Your task to perform on an android device: Open eBay Image 0: 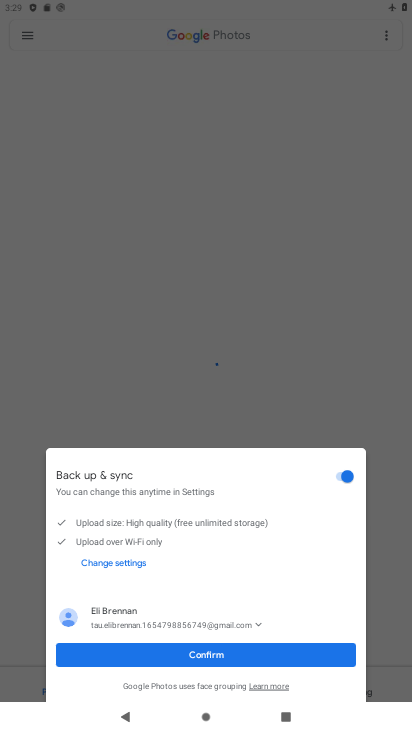
Step 0: press home button
Your task to perform on an android device: Open eBay Image 1: 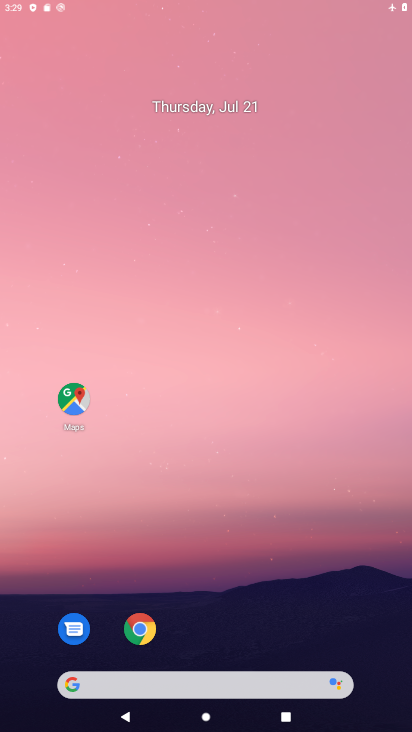
Step 1: press home button
Your task to perform on an android device: Open eBay Image 2: 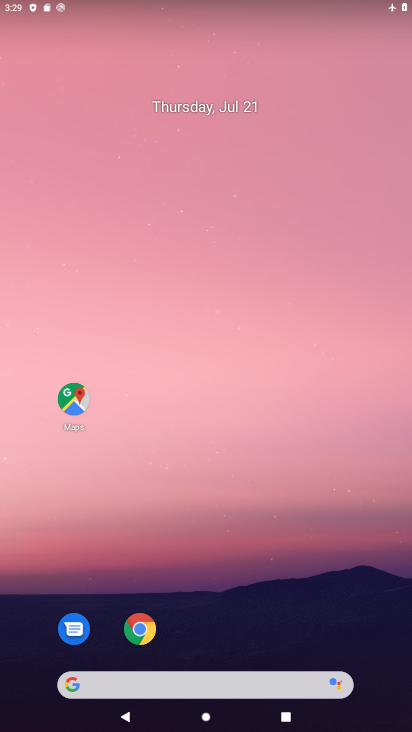
Step 2: click (132, 631)
Your task to perform on an android device: Open eBay Image 3: 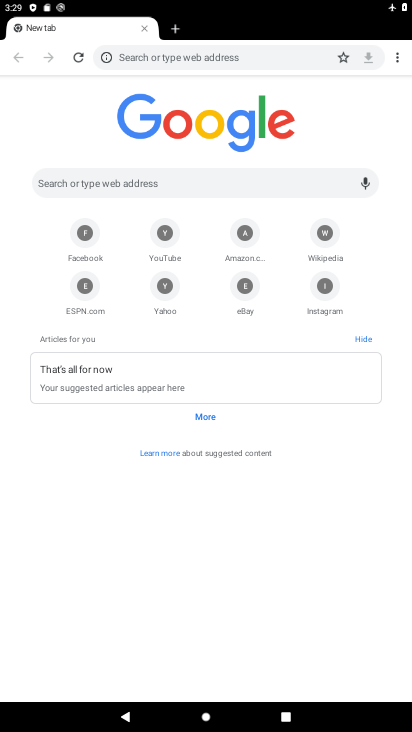
Step 3: click (254, 288)
Your task to perform on an android device: Open eBay Image 4: 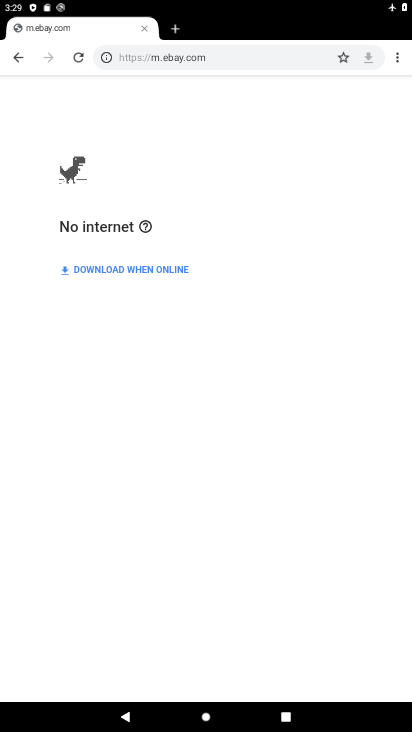
Step 4: drag from (345, 4) to (326, 418)
Your task to perform on an android device: Open eBay Image 5: 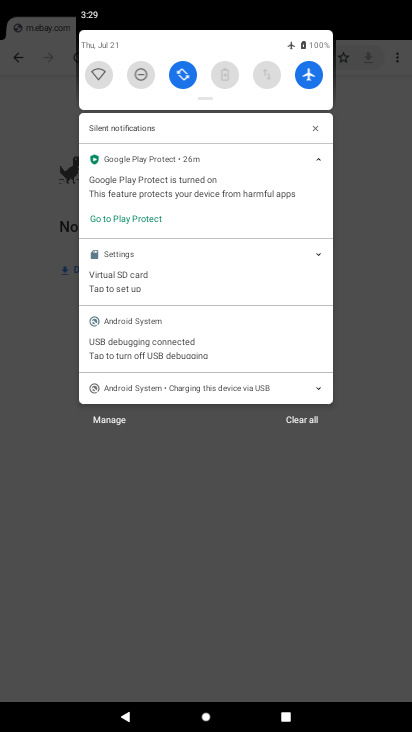
Step 5: click (310, 79)
Your task to perform on an android device: Open eBay Image 6: 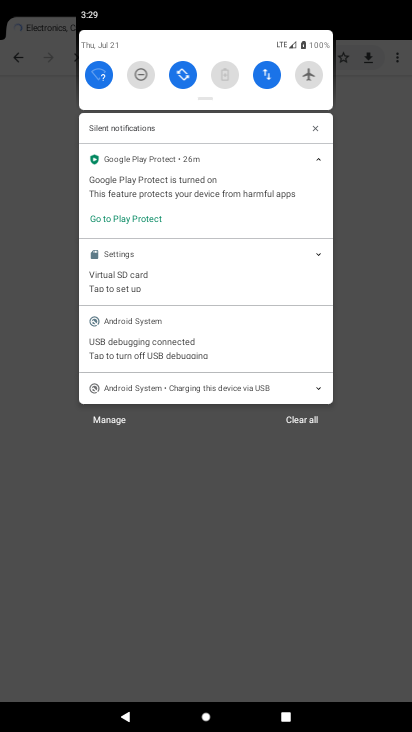
Step 6: task complete